Your task to perform on an android device: See recent photos Image 0: 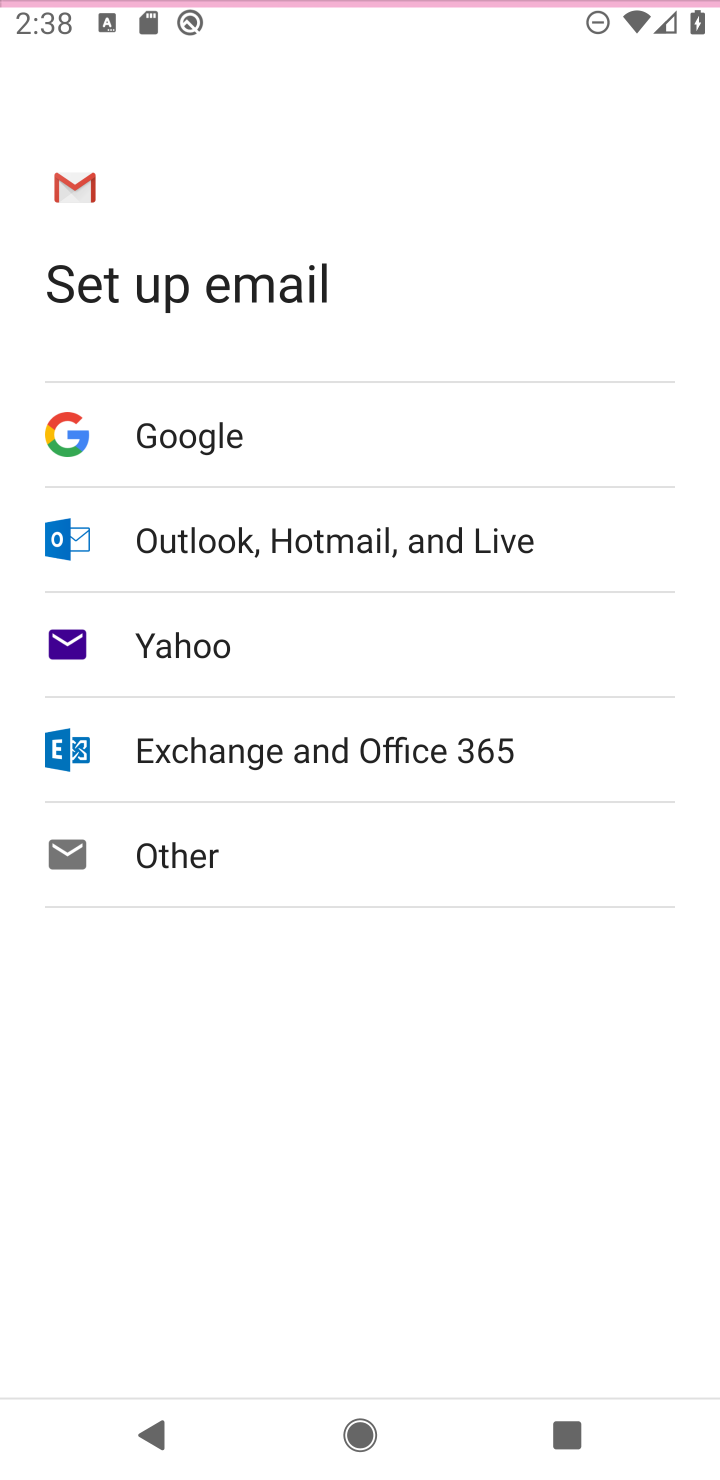
Step 0: press home button
Your task to perform on an android device: See recent photos Image 1: 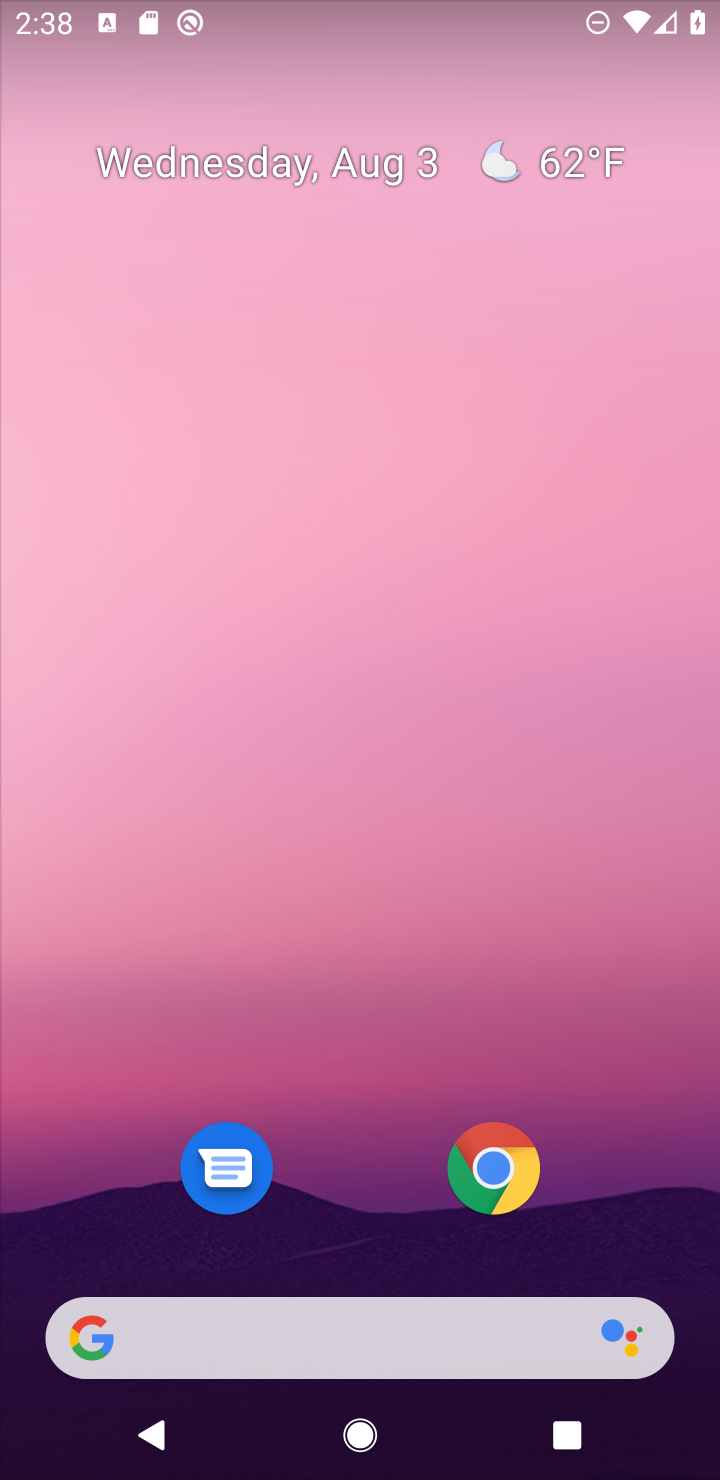
Step 1: drag from (628, 805) to (592, 274)
Your task to perform on an android device: See recent photos Image 2: 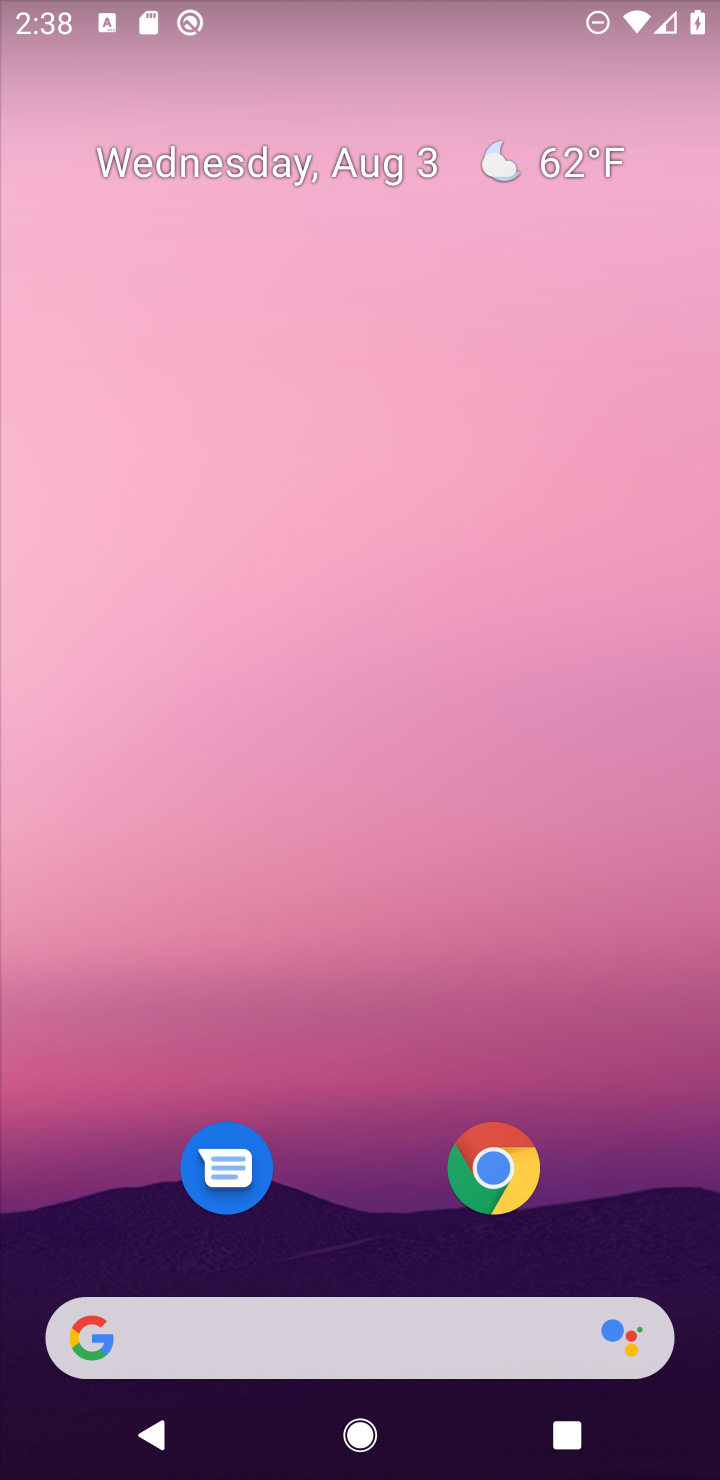
Step 2: drag from (671, 1260) to (621, 287)
Your task to perform on an android device: See recent photos Image 3: 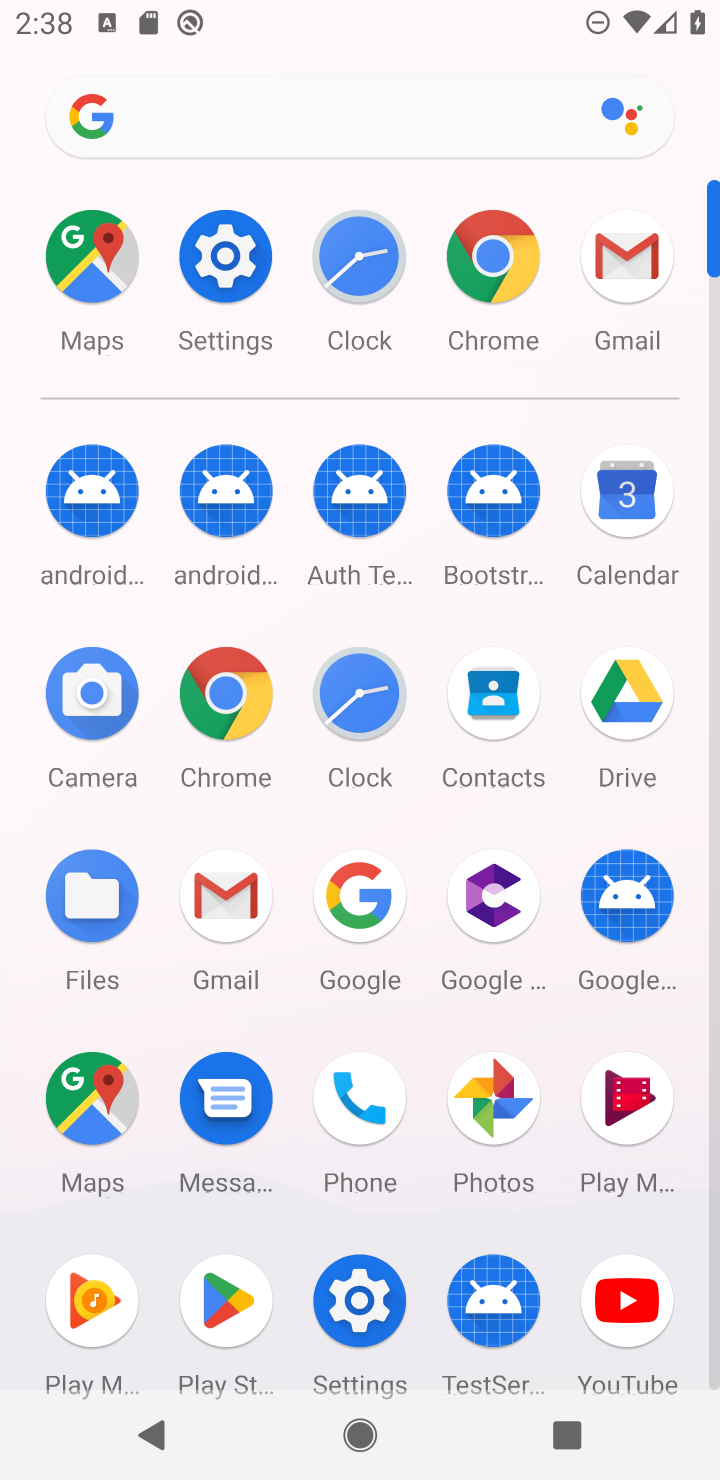
Step 3: click (491, 1096)
Your task to perform on an android device: See recent photos Image 4: 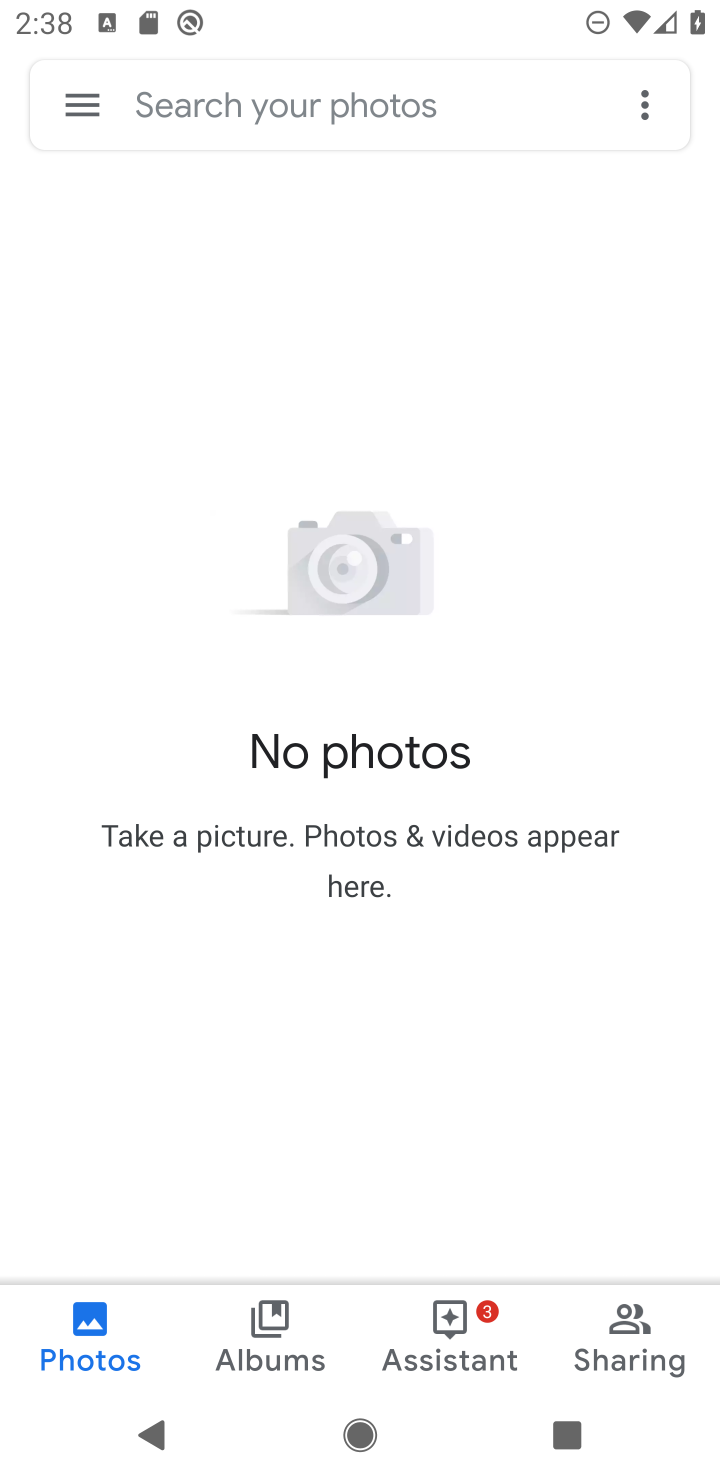
Step 4: task complete